Your task to perform on an android device: Open display settings Image 0: 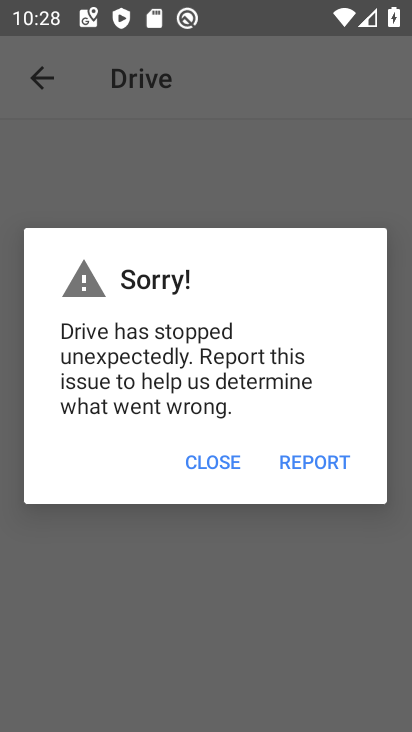
Step 0: press home button
Your task to perform on an android device: Open display settings Image 1: 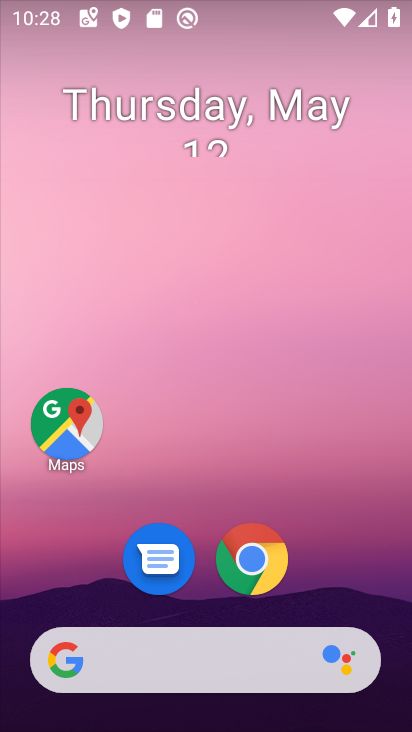
Step 1: drag from (222, 576) to (214, 238)
Your task to perform on an android device: Open display settings Image 2: 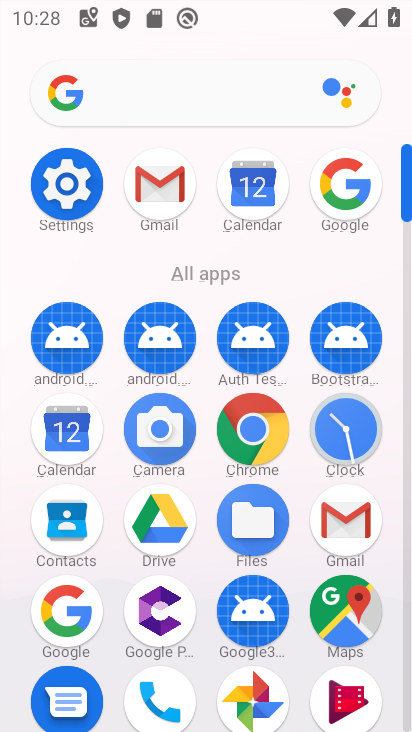
Step 2: click (88, 214)
Your task to perform on an android device: Open display settings Image 3: 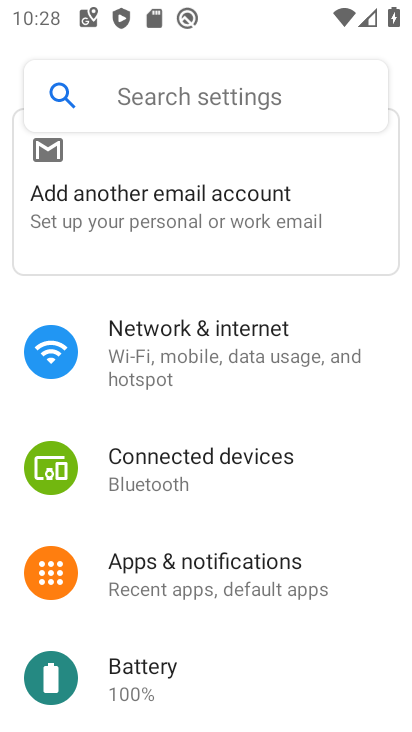
Step 3: drag from (213, 594) to (221, 453)
Your task to perform on an android device: Open display settings Image 4: 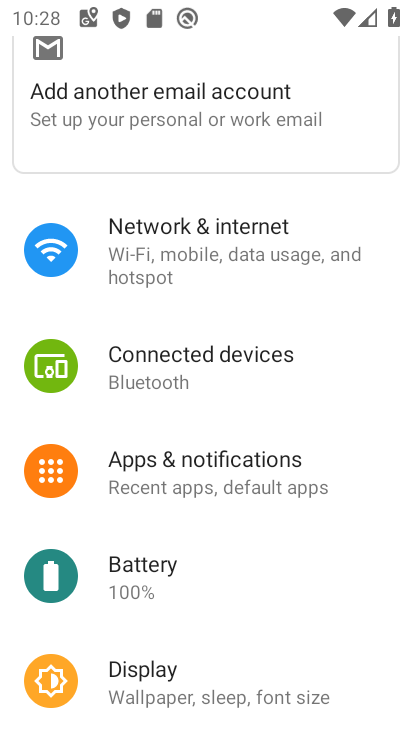
Step 4: drag from (223, 573) to (230, 378)
Your task to perform on an android device: Open display settings Image 5: 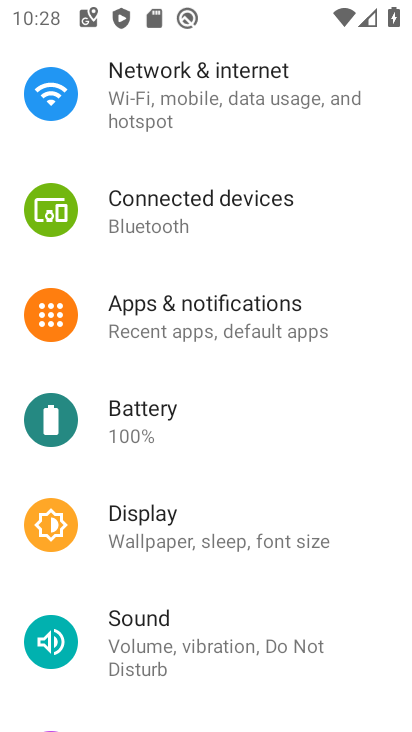
Step 5: click (185, 503)
Your task to perform on an android device: Open display settings Image 6: 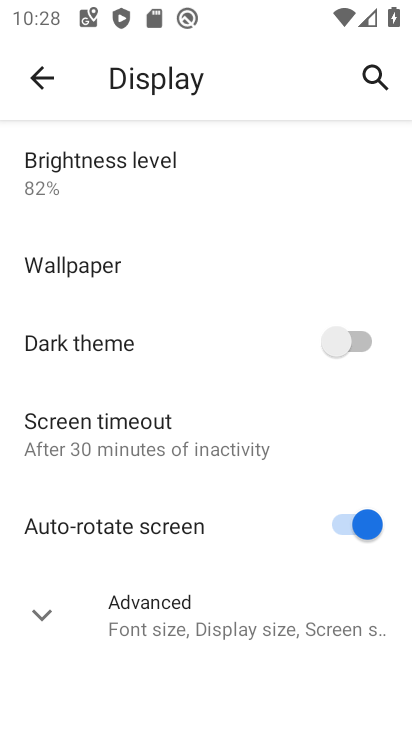
Step 6: task complete